Your task to perform on an android device: Open Reddit.com Image 0: 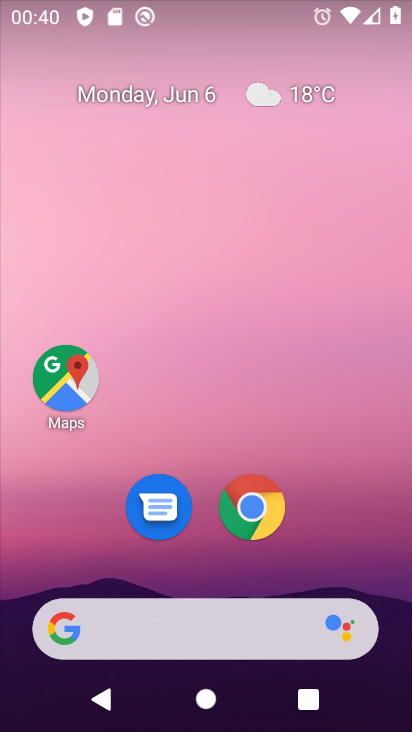
Step 0: click (260, 520)
Your task to perform on an android device: Open Reddit.com Image 1: 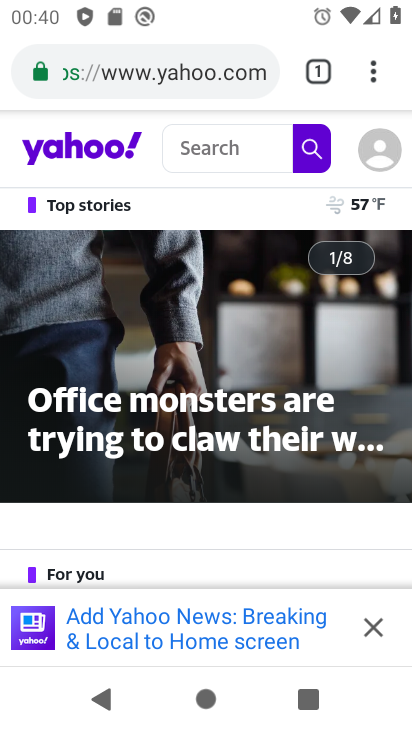
Step 1: click (181, 69)
Your task to perform on an android device: Open Reddit.com Image 2: 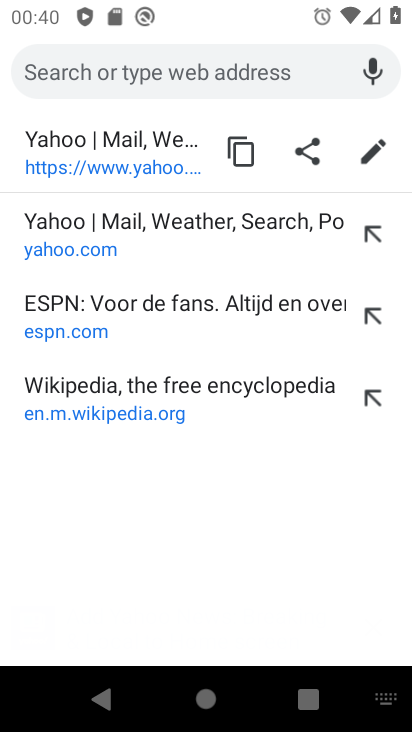
Step 2: type "reddit.com"
Your task to perform on an android device: Open Reddit.com Image 3: 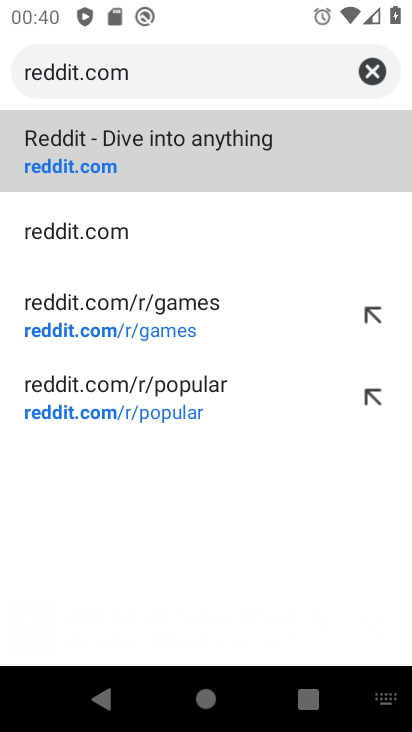
Step 3: click (135, 149)
Your task to perform on an android device: Open Reddit.com Image 4: 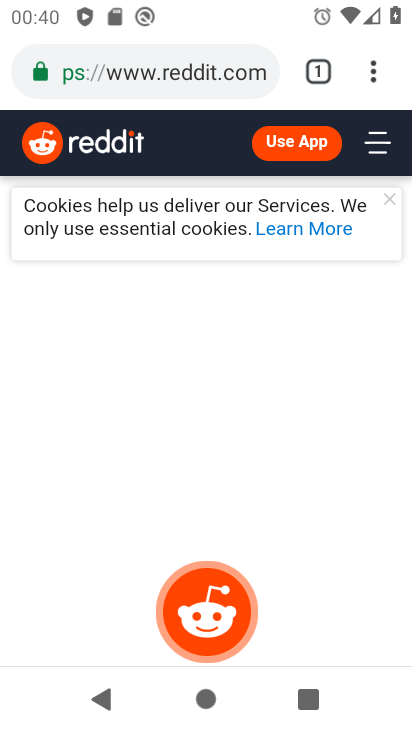
Step 4: click (391, 199)
Your task to perform on an android device: Open Reddit.com Image 5: 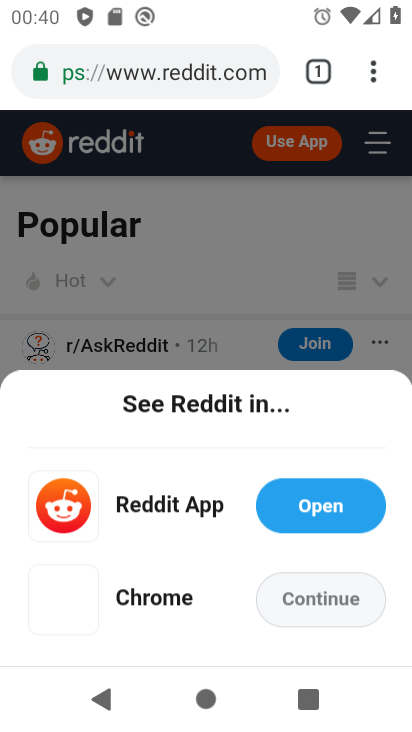
Step 5: task complete